Your task to perform on an android device: Add "jbl flip 4" to the cart on costco.com Image 0: 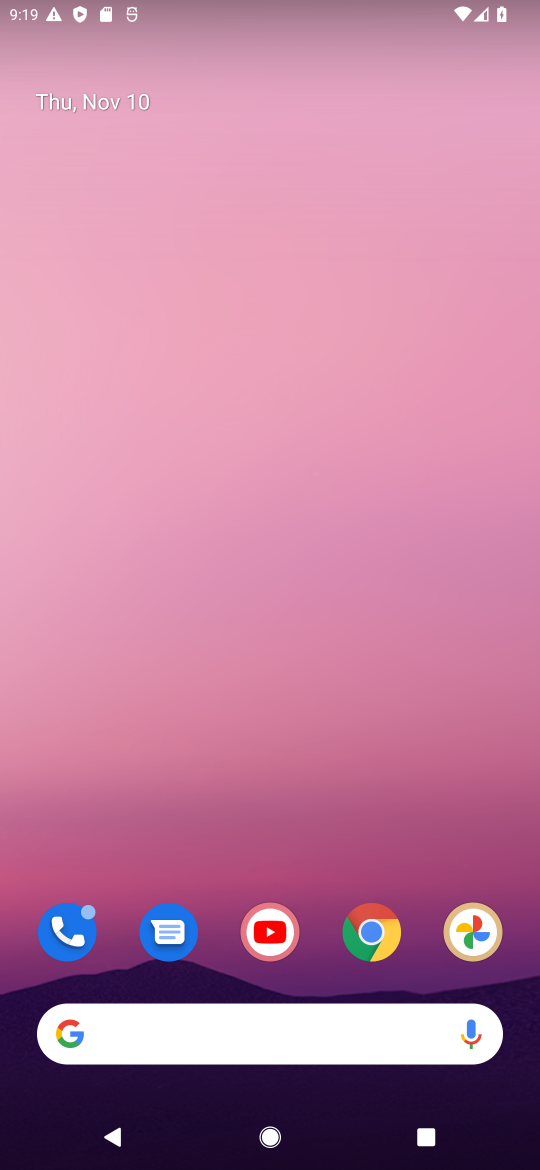
Step 0: click (389, 946)
Your task to perform on an android device: Add "jbl flip 4" to the cart on costco.com Image 1: 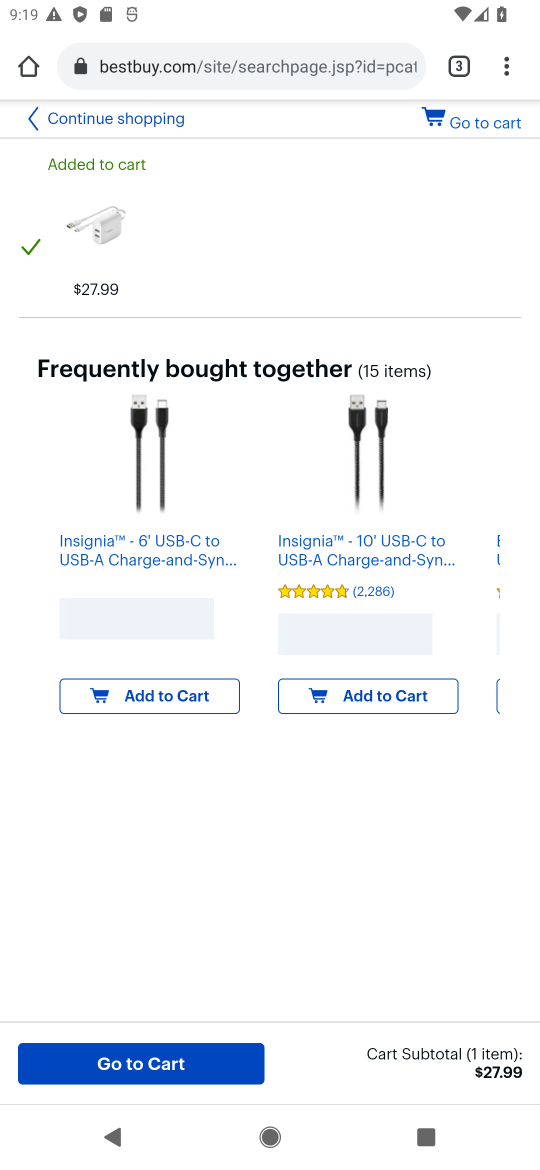
Step 1: click (465, 68)
Your task to perform on an android device: Add "jbl flip 4" to the cart on costco.com Image 2: 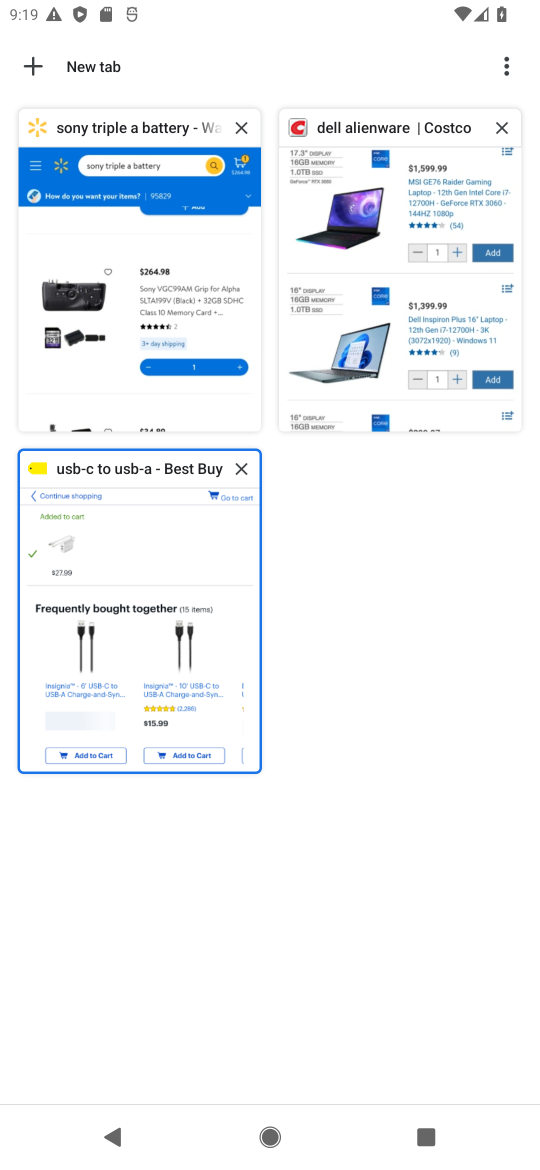
Step 2: click (433, 331)
Your task to perform on an android device: Add "jbl flip 4" to the cart on costco.com Image 3: 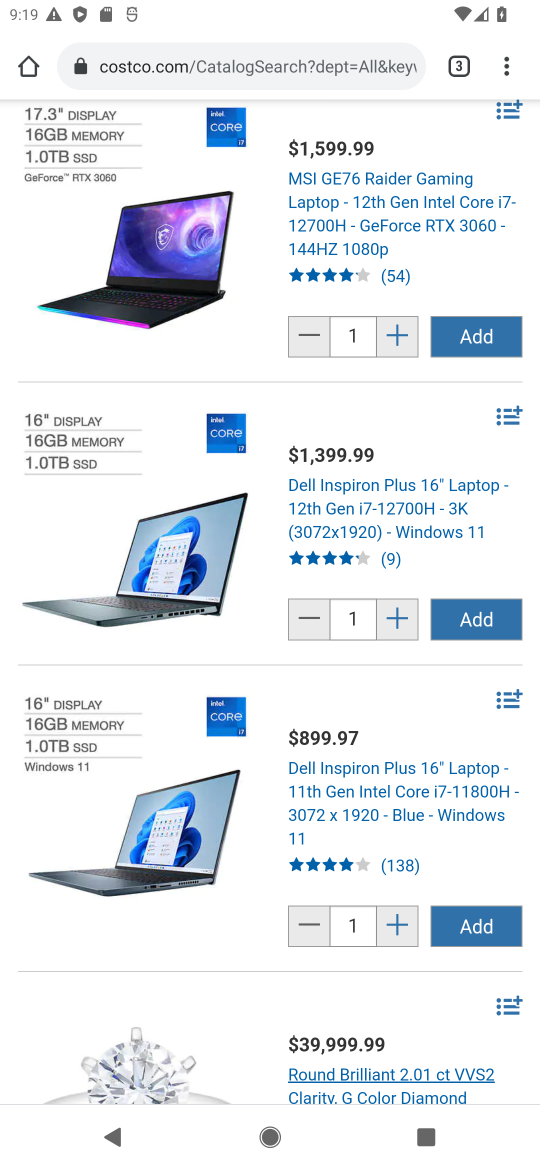
Step 3: drag from (445, 156) to (484, 560)
Your task to perform on an android device: Add "jbl flip 4" to the cart on costco.com Image 4: 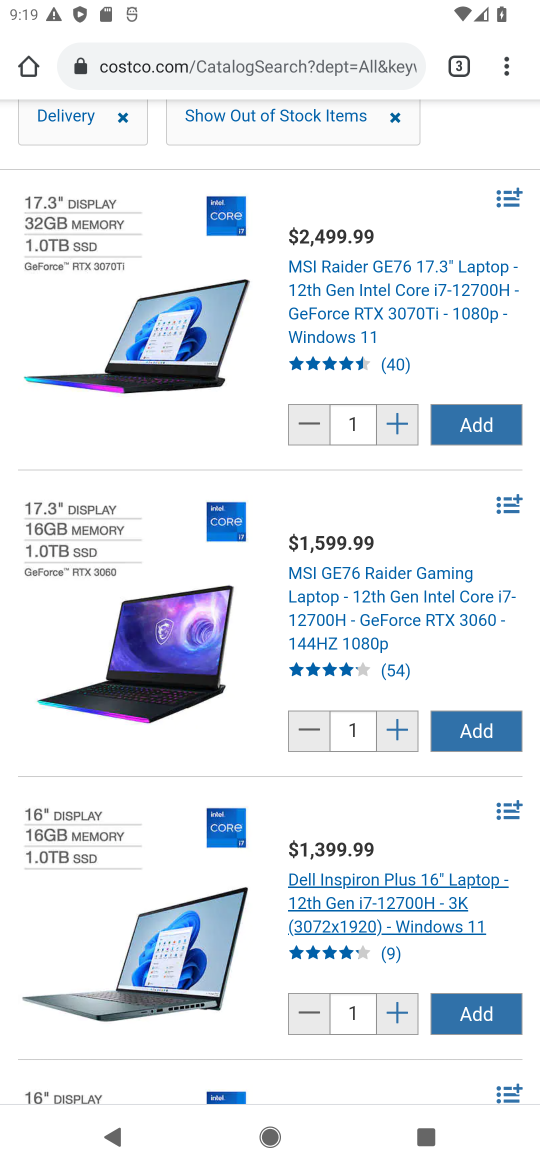
Step 4: drag from (438, 123) to (303, 821)
Your task to perform on an android device: Add "jbl flip 4" to the cart on costco.com Image 5: 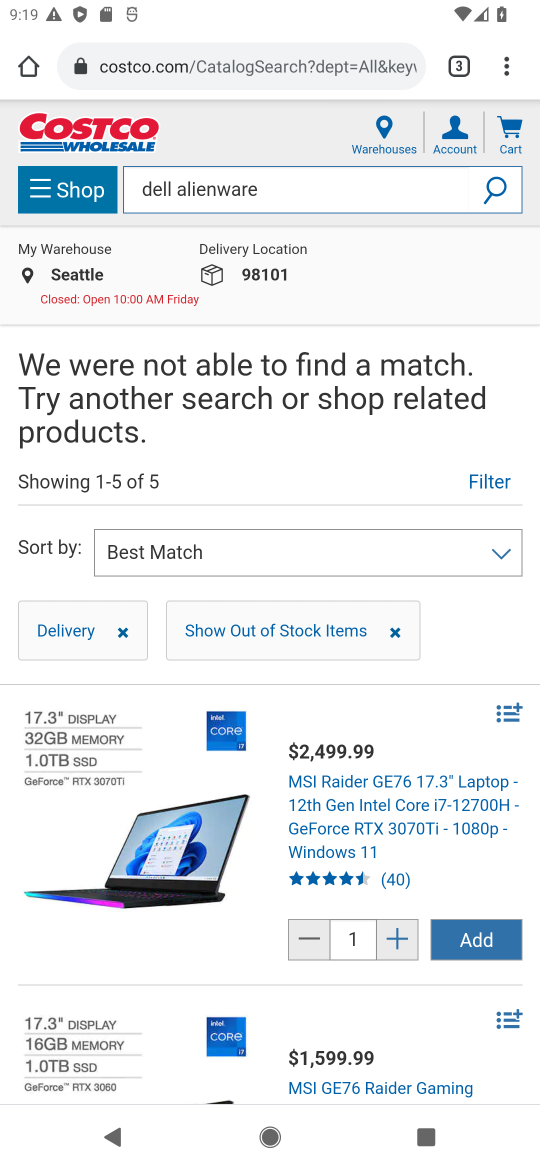
Step 5: click (255, 187)
Your task to perform on an android device: Add "jbl flip 4" to the cart on costco.com Image 6: 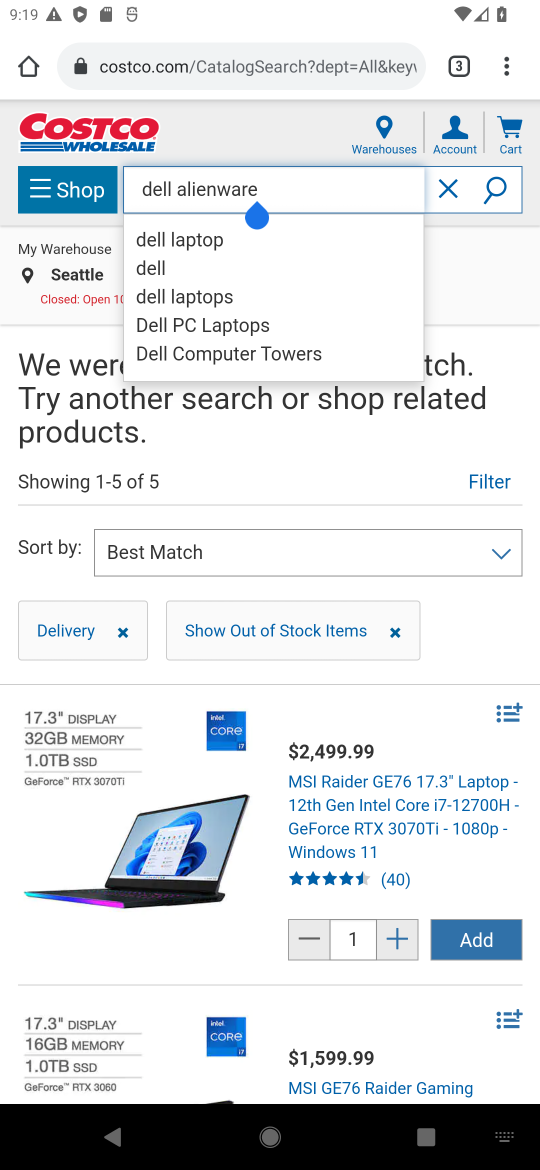
Step 6: click (446, 186)
Your task to perform on an android device: Add "jbl flip 4" to the cart on costco.com Image 7: 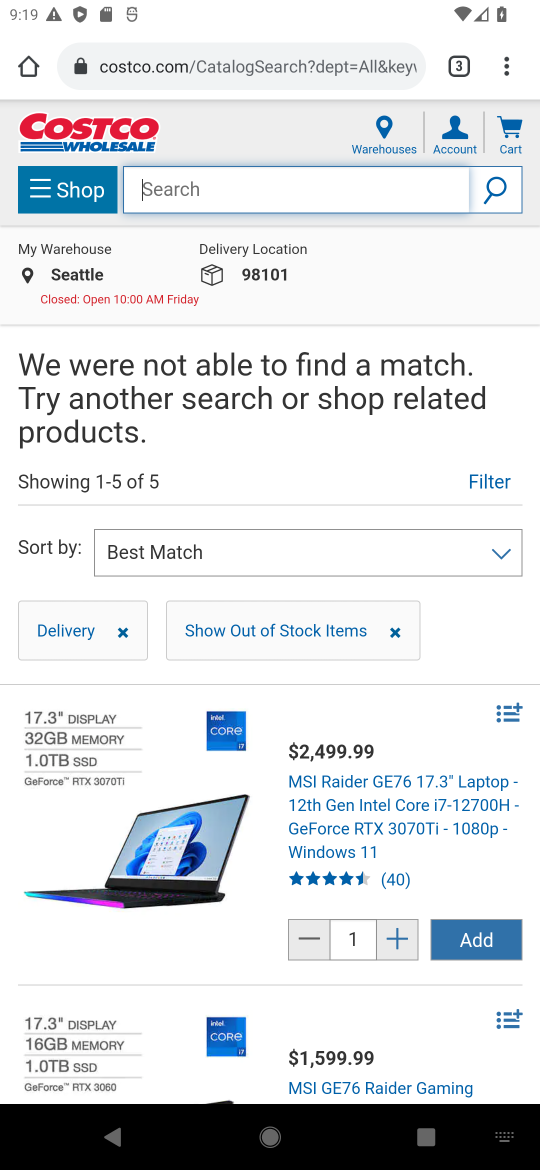
Step 7: type "jbl flip 4"
Your task to perform on an android device: Add "jbl flip 4" to the cart on costco.com Image 8: 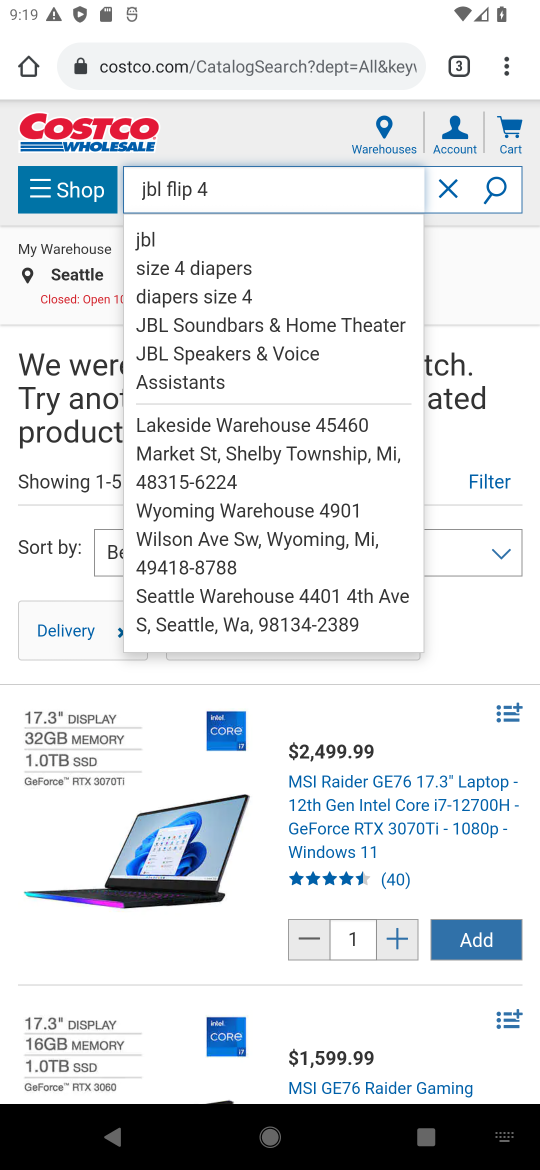
Step 8: click (496, 182)
Your task to perform on an android device: Add "jbl flip 4" to the cart on costco.com Image 9: 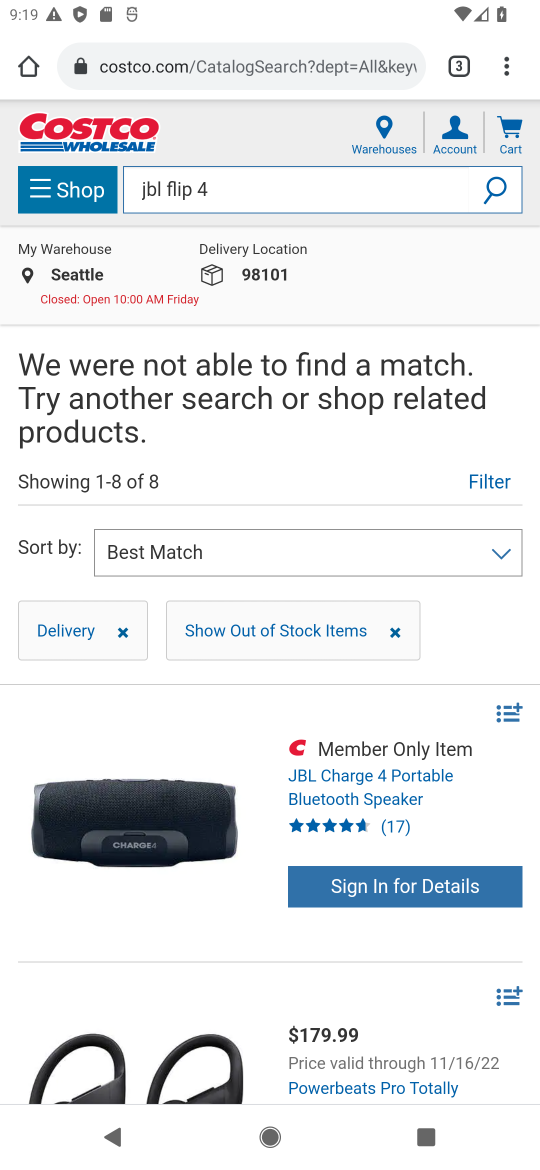
Step 9: click (358, 793)
Your task to perform on an android device: Add "jbl flip 4" to the cart on costco.com Image 10: 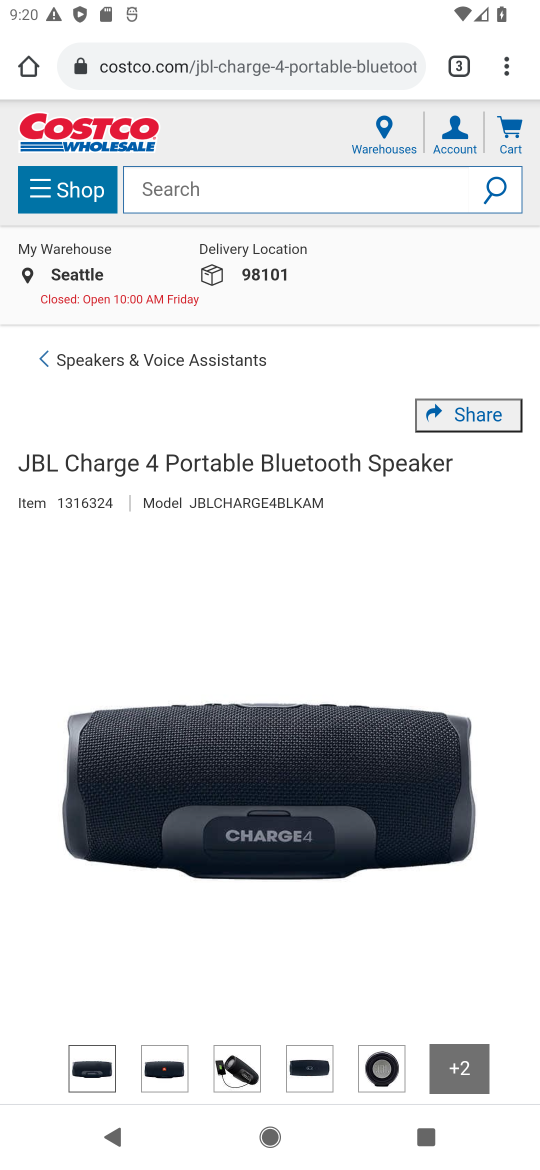
Step 10: drag from (395, 1003) to (539, 557)
Your task to perform on an android device: Add "jbl flip 4" to the cart on costco.com Image 11: 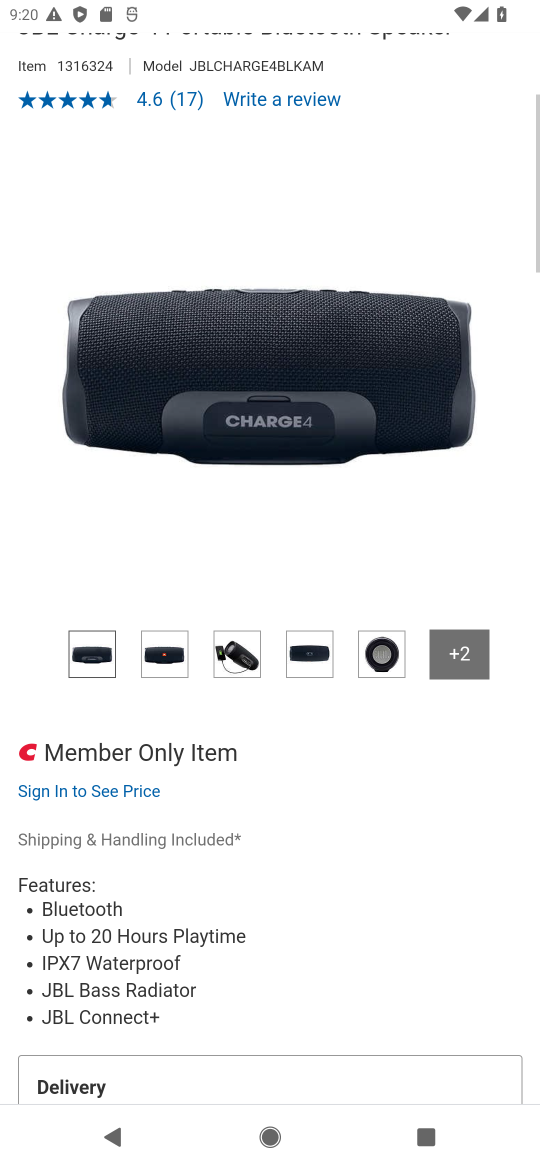
Step 11: drag from (264, 982) to (364, 586)
Your task to perform on an android device: Add "jbl flip 4" to the cart on costco.com Image 12: 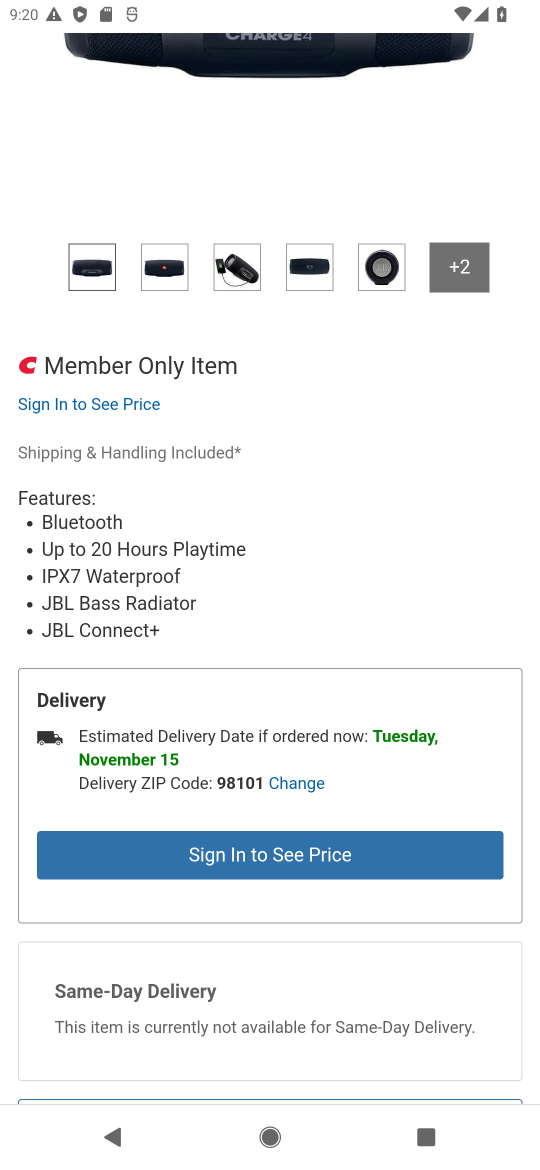
Step 12: drag from (245, 937) to (325, 664)
Your task to perform on an android device: Add "jbl flip 4" to the cart on costco.com Image 13: 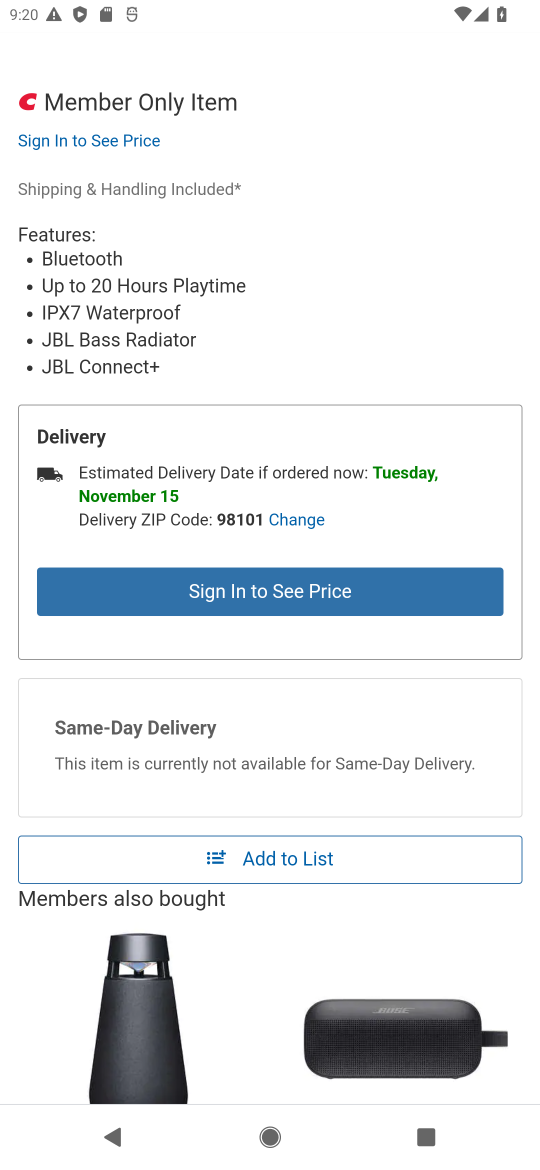
Step 13: click (218, 861)
Your task to perform on an android device: Add "jbl flip 4" to the cart on costco.com Image 14: 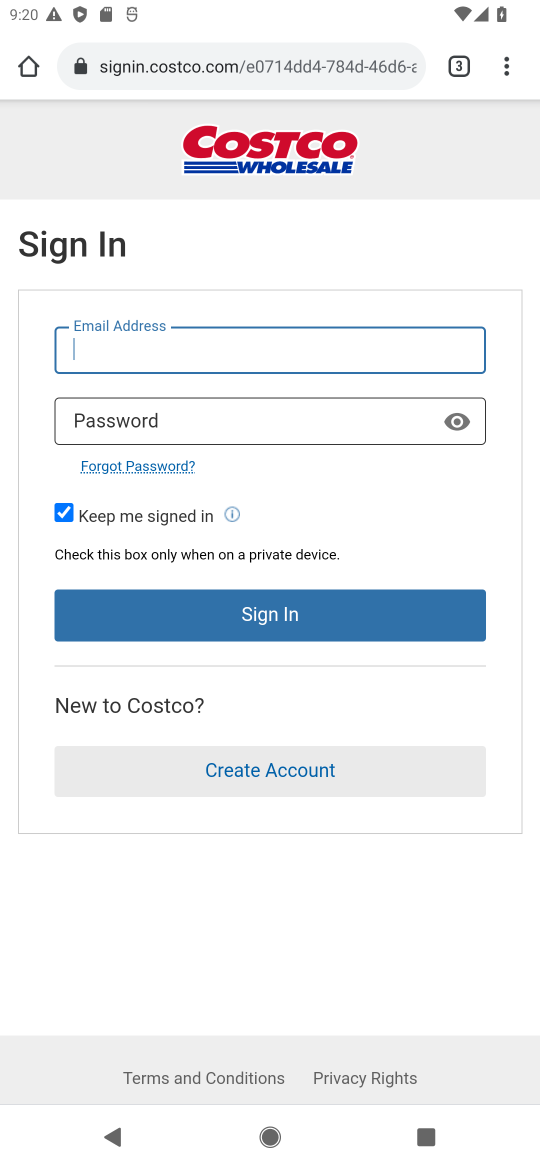
Step 14: task complete